Your task to perform on an android device: Open my contact list Image 0: 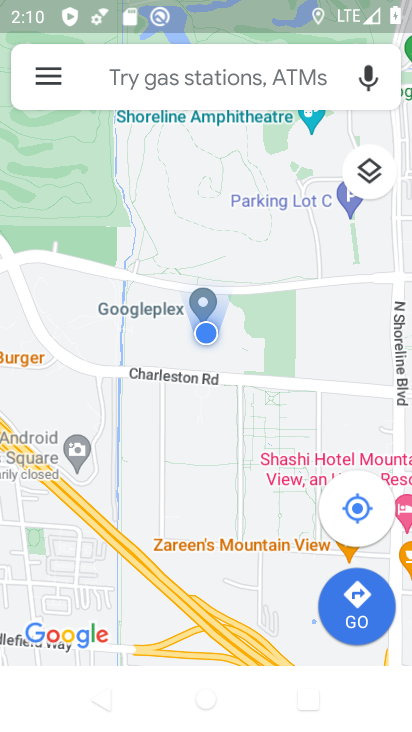
Step 0: press back button
Your task to perform on an android device: Open my contact list Image 1: 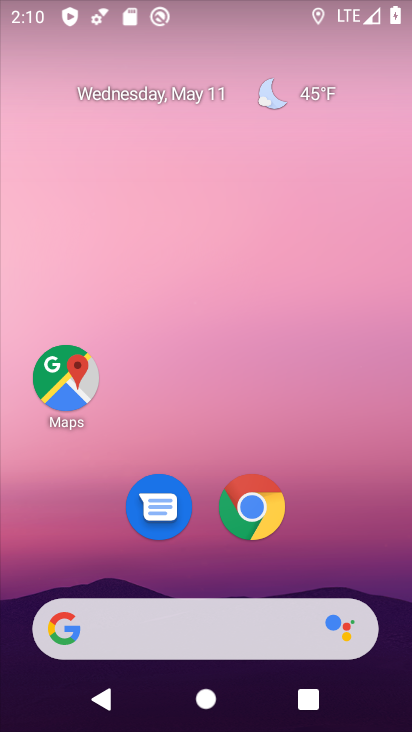
Step 1: drag from (356, 524) to (266, 30)
Your task to perform on an android device: Open my contact list Image 2: 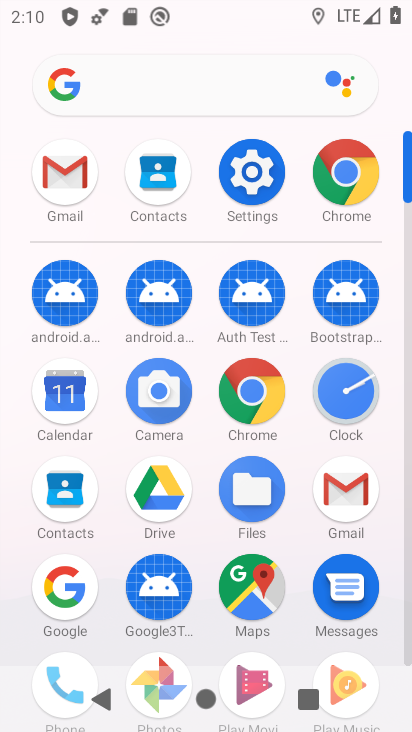
Step 2: drag from (7, 546) to (18, 200)
Your task to perform on an android device: Open my contact list Image 3: 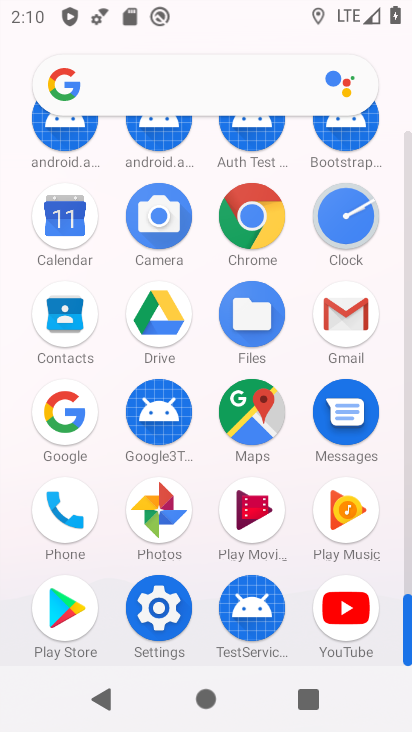
Step 3: drag from (6, 244) to (15, 537)
Your task to perform on an android device: Open my contact list Image 4: 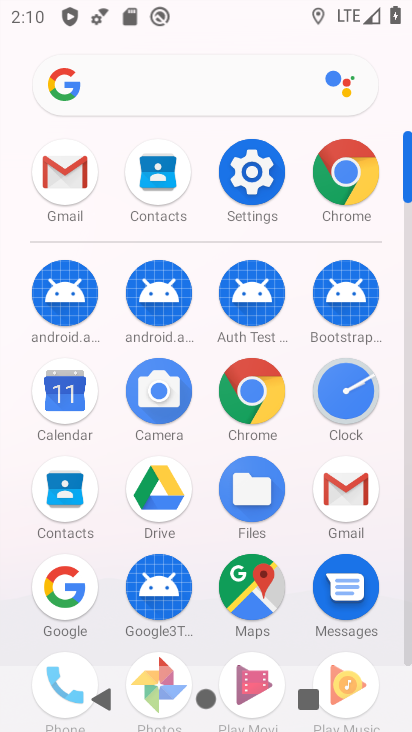
Step 4: drag from (22, 533) to (22, 367)
Your task to perform on an android device: Open my contact list Image 5: 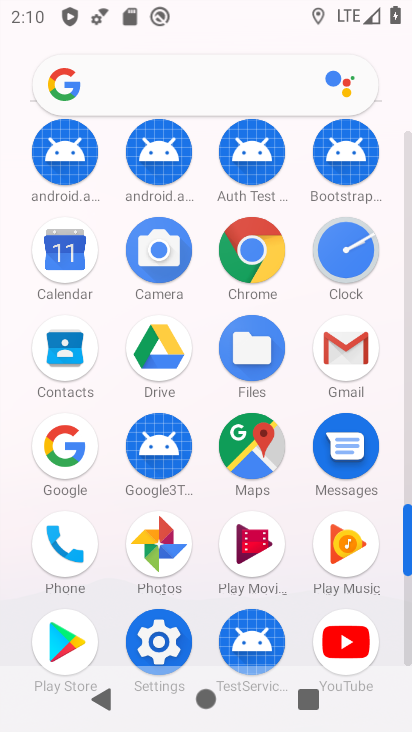
Step 5: click (55, 347)
Your task to perform on an android device: Open my contact list Image 6: 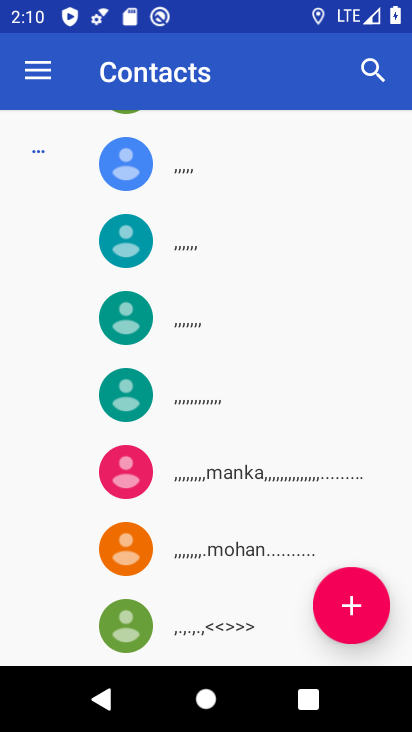
Step 6: task complete